Your task to perform on an android device: toggle location history Image 0: 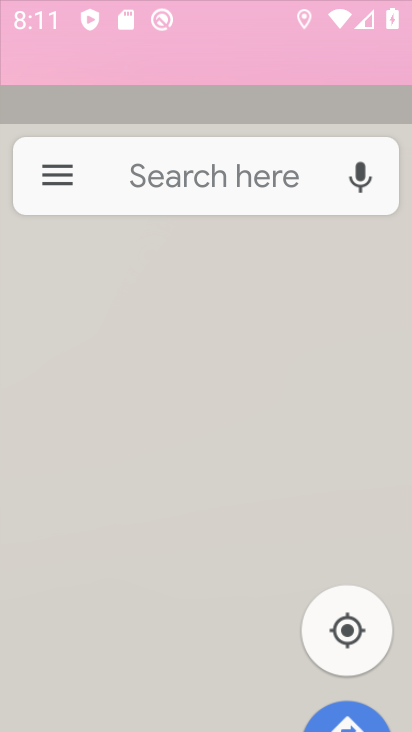
Step 0: press home button
Your task to perform on an android device: toggle location history Image 1: 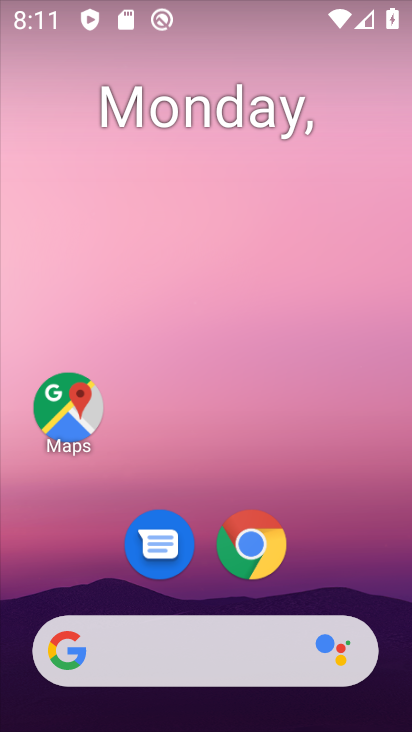
Step 1: drag from (203, 573) to (253, 98)
Your task to perform on an android device: toggle location history Image 2: 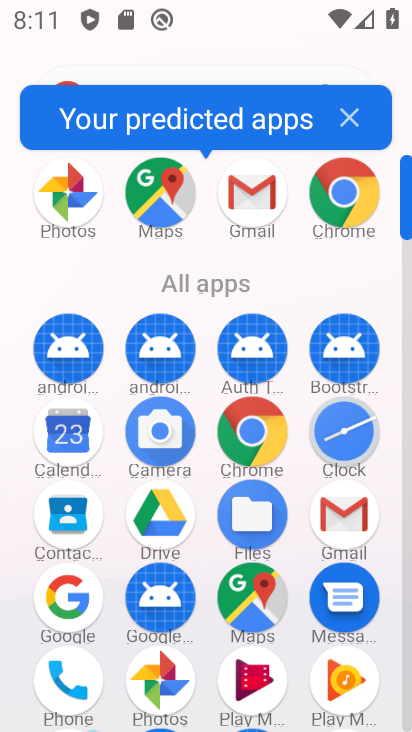
Step 2: drag from (204, 542) to (223, 233)
Your task to perform on an android device: toggle location history Image 3: 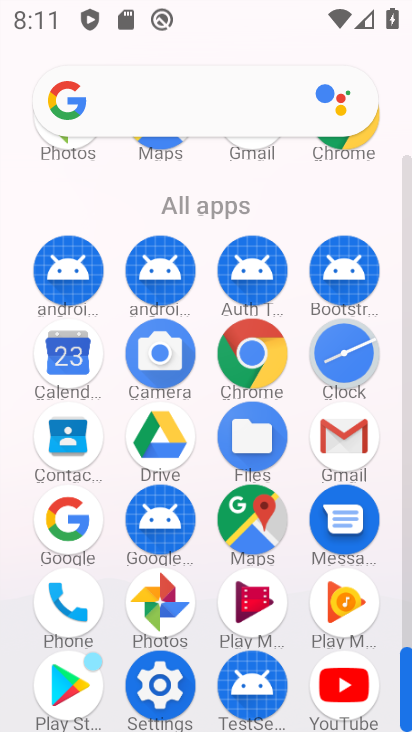
Step 3: click (169, 671)
Your task to perform on an android device: toggle location history Image 4: 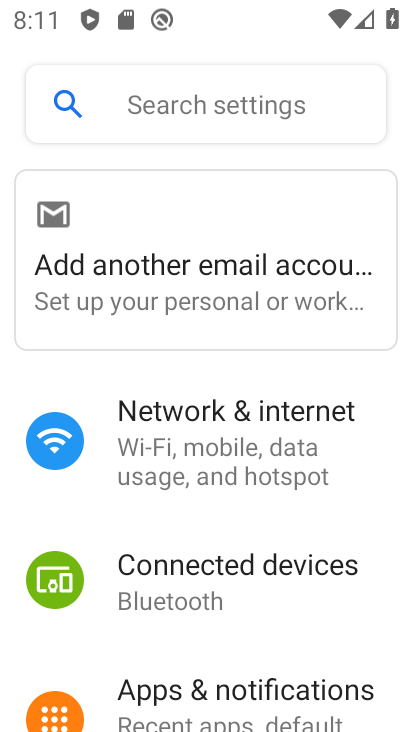
Step 4: drag from (260, 677) to (297, 217)
Your task to perform on an android device: toggle location history Image 5: 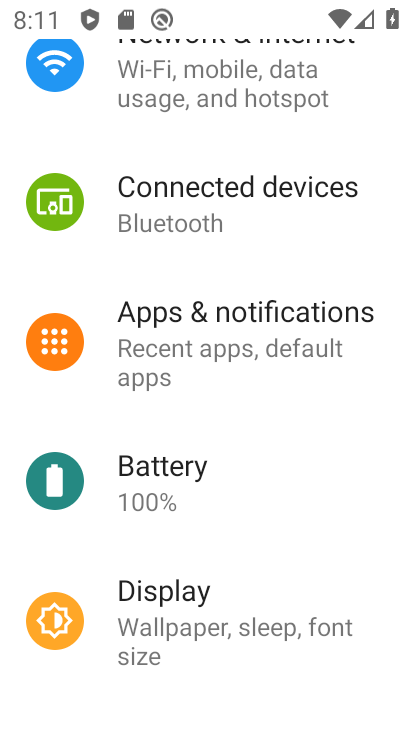
Step 5: drag from (141, 635) to (297, 179)
Your task to perform on an android device: toggle location history Image 6: 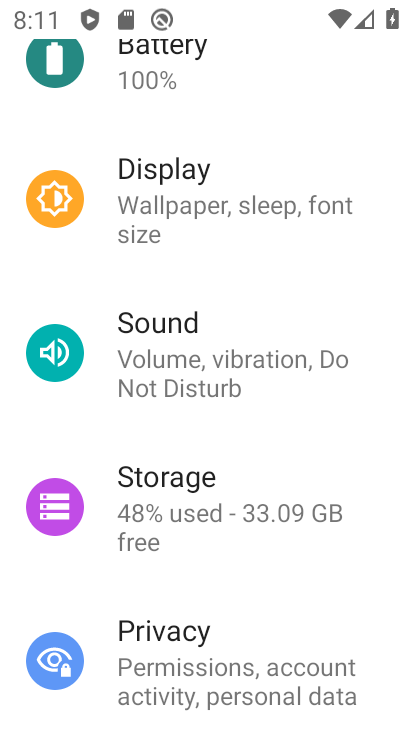
Step 6: drag from (146, 642) to (253, 274)
Your task to perform on an android device: toggle location history Image 7: 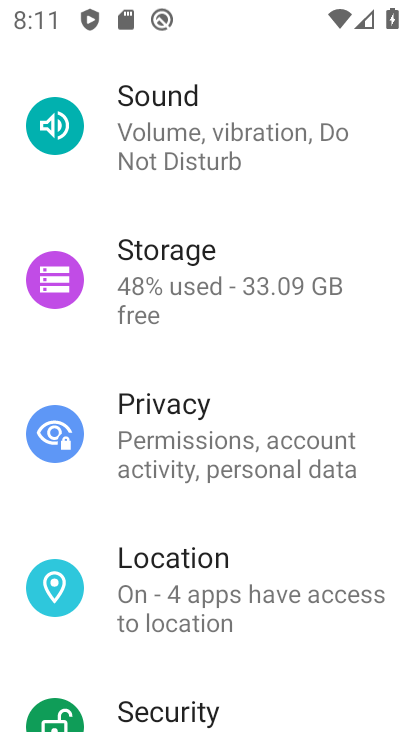
Step 7: click (158, 577)
Your task to perform on an android device: toggle location history Image 8: 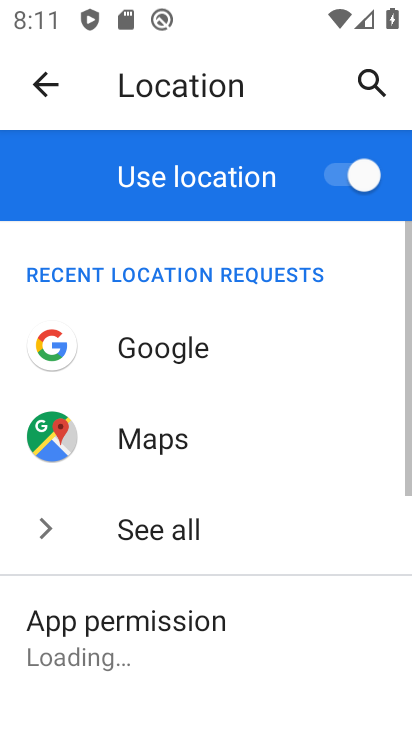
Step 8: drag from (254, 641) to (337, 158)
Your task to perform on an android device: toggle location history Image 9: 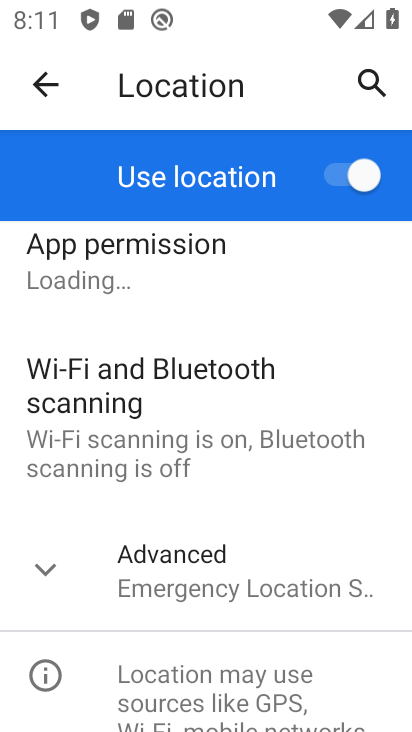
Step 9: click (129, 587)
Your task to perform on an android device: toggle location history Image 10: 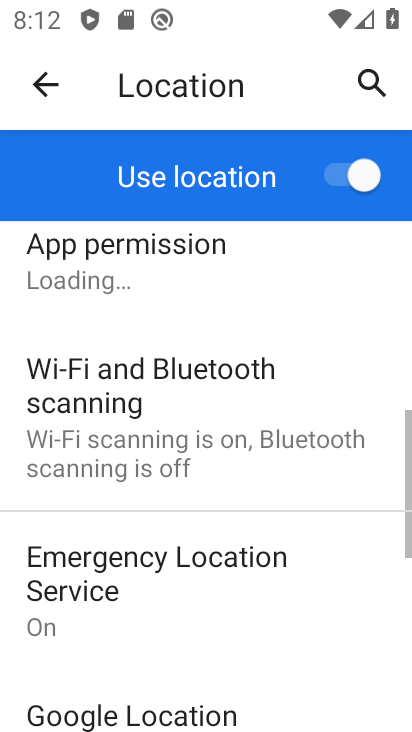
Step 10: drag from (170, 661) to (221, 308)
Your task to perform on an android device: toggle location history Image 11: 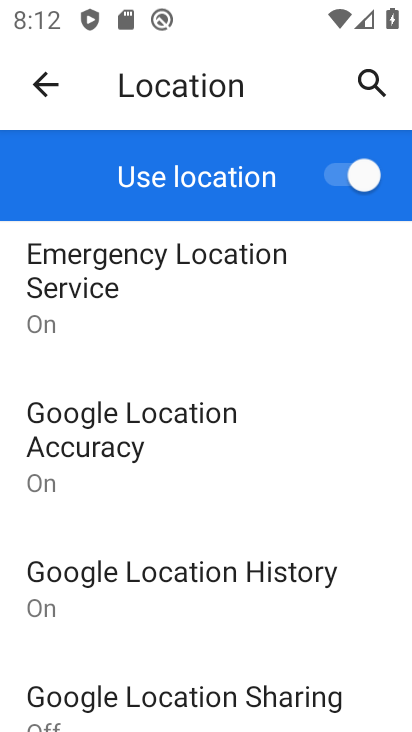
Step 11: click (239, 561)
Your task to perform on an android device: toggle location history Image 12: 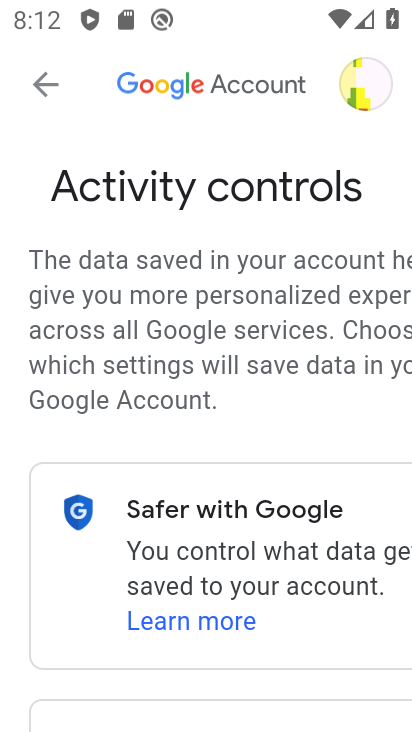
Step 12: drag from (286, 656) to (318, 271)
Your task to perform on an android device: toggle location history Image 13: 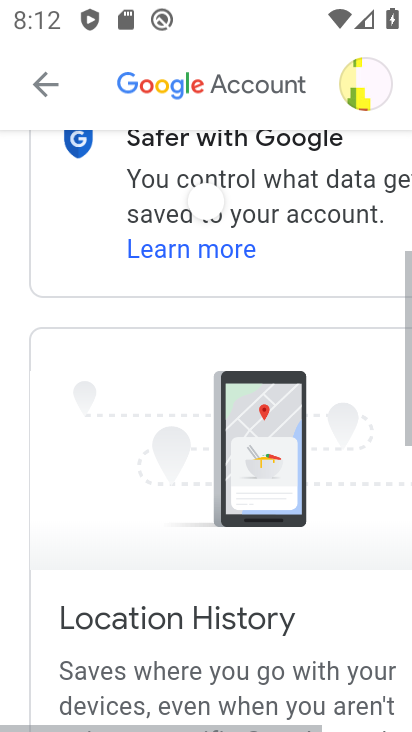
Step 13: drag from (252, 695) to (343, 383)
Your task to perform on an android device: toggle location history Image 14: 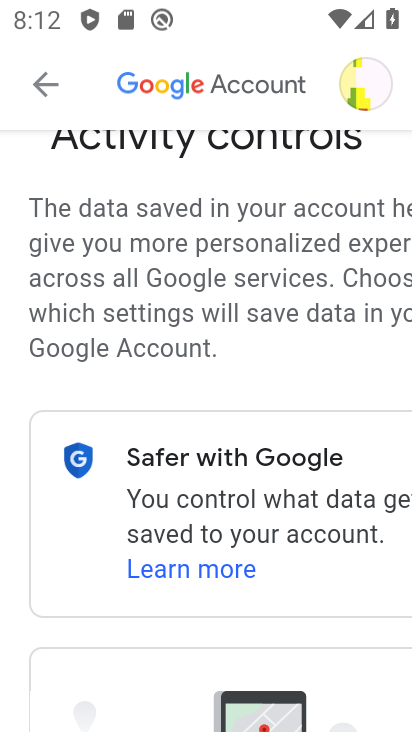
Step 14: drag from (285, 700) to (337, 249)
Your task to perform on an android device: toggle location history Image 15: 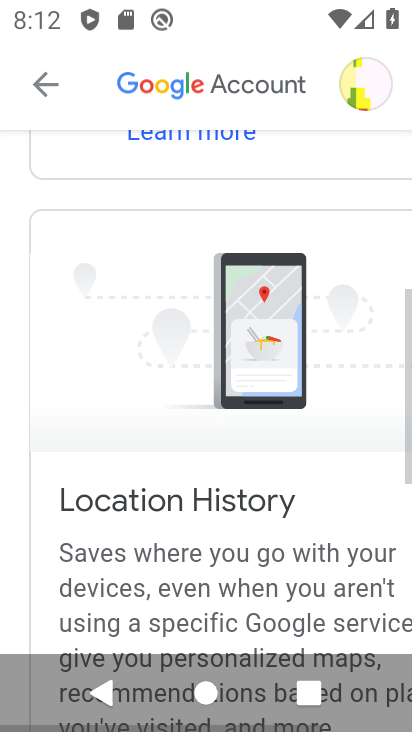
Step 15: drag from (266, 568) to (348, 146)
Your task to perform on an android device: toggle location history Image 16: 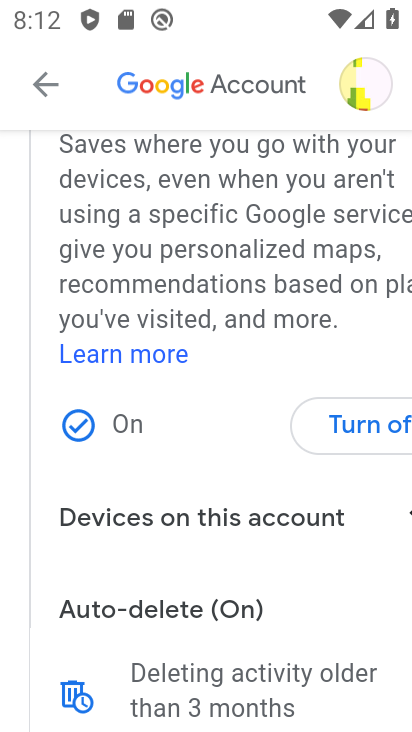
Step 16: click (343, 428)
Your task to perform on an android device: toggle location history Image 17: 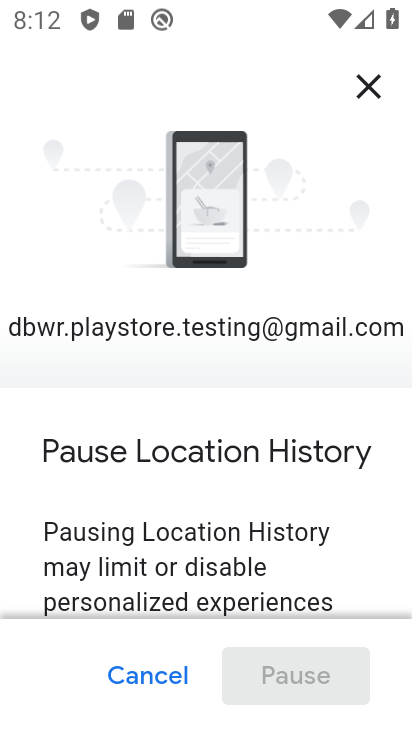
Step 17: drag from (309, 333) to (324, 88)
Your task to perform on an android device: toggle location history Image 18: 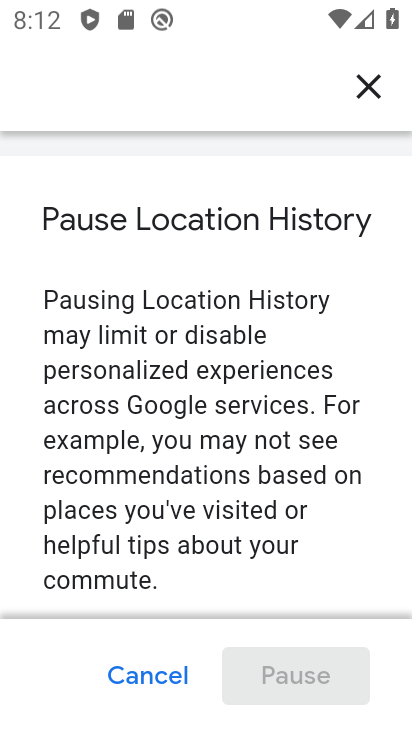
Step 18: drag from (275, 557) to (281, 215)
Your task to perform on an android device: toggle location history Image 19: 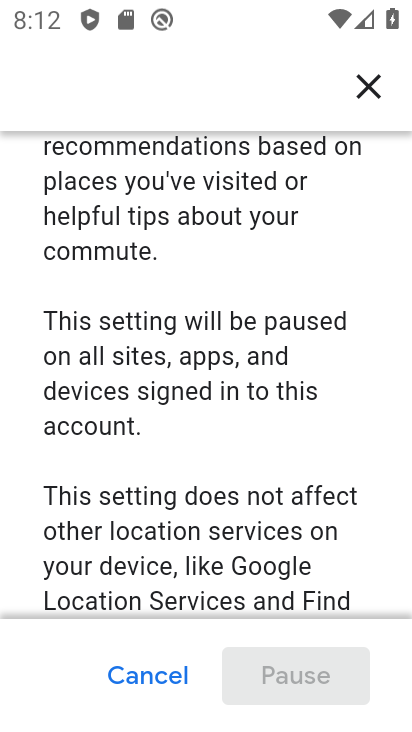
Step 19: drag from (254, 566) to (312, 267)
Your task to perform on an android device: toggle location history Image 20: 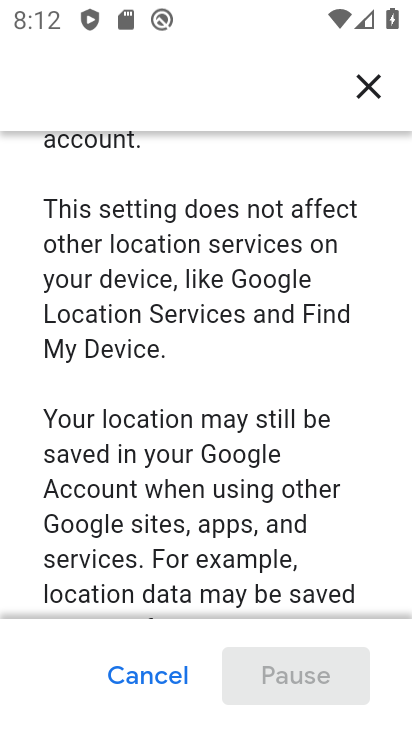
Step 20: drag from (285, 533) to (344, 223)
Your task to perform on an android device: toggle location history Image 21: 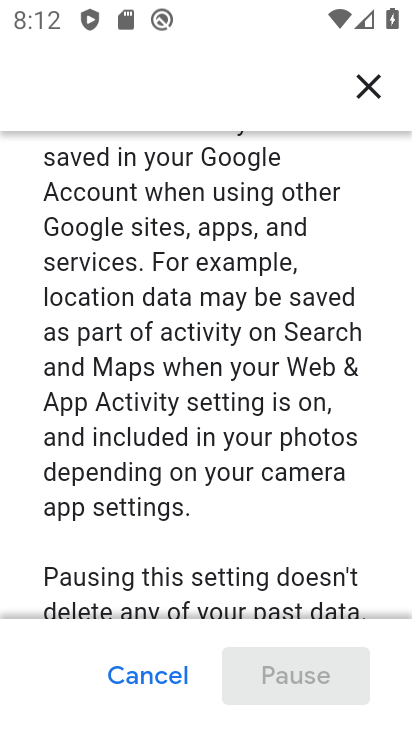
Step 21: drag from (286, 565) to (292, 283)
Your task to perform on an android device: toggle location history Image 22: 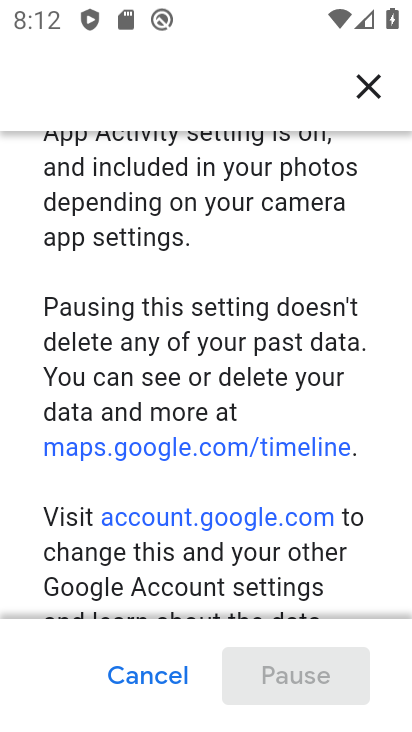
Step 22: drag from (267, 577) to (278, 292)
Your task to perform on an android device: toggle location history Image 23: 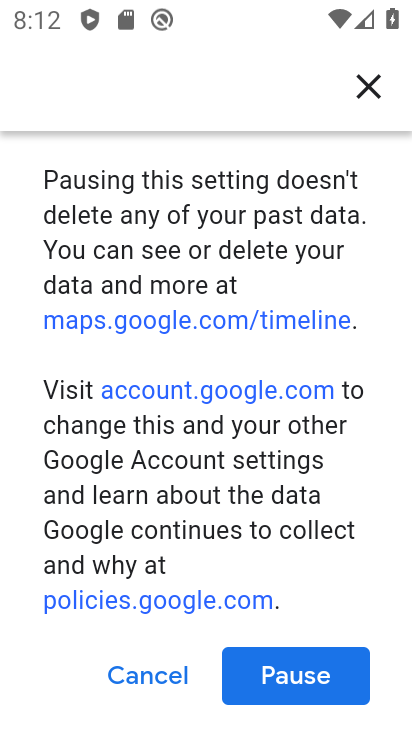
Step 23: click (295, 687)
Your task to perform on an android device: toggle location history Image 24: 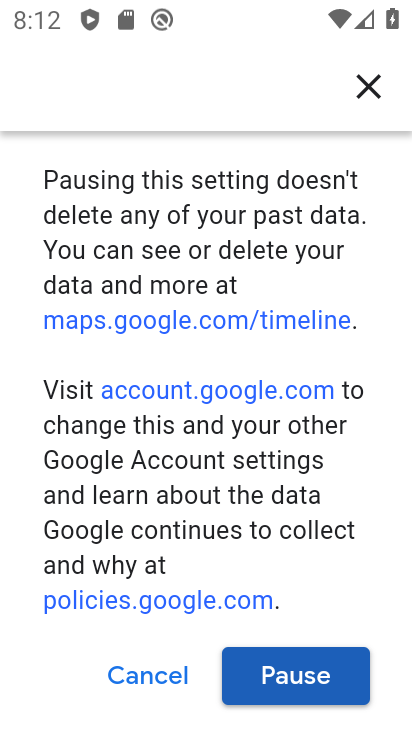
Step 24: click (294, 684)
Your task to perform on an android device: toggle location history Image 25: 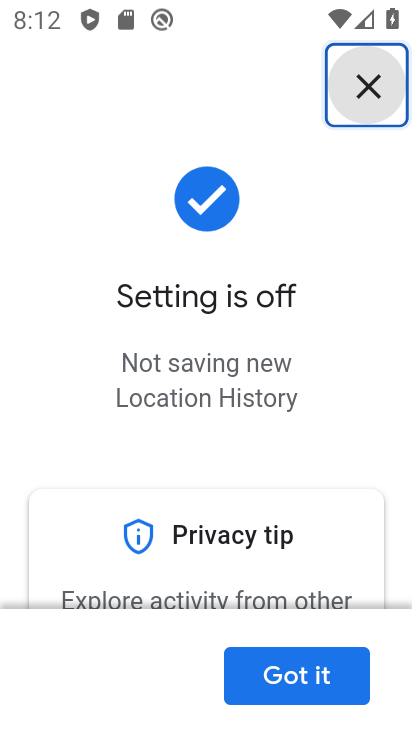
Step 25: click (324, 696)
Your task to perform on an android device: toggle location history Image 26: 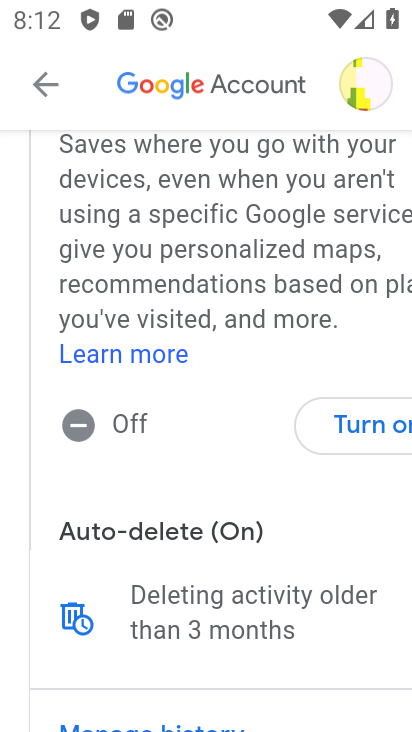
Step 26: task complete